Your task to perform on an android device: What's on my calendar tomorrow? Image 0: 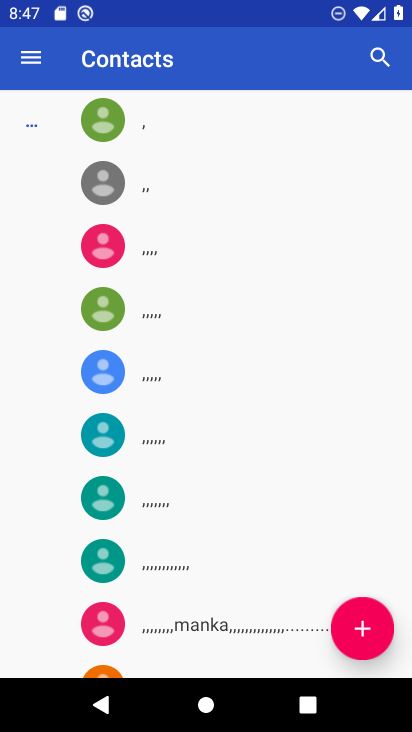
Step 0: press home button
Your task to perform on an android device: What's on my calendar tomorrow? Image 1: 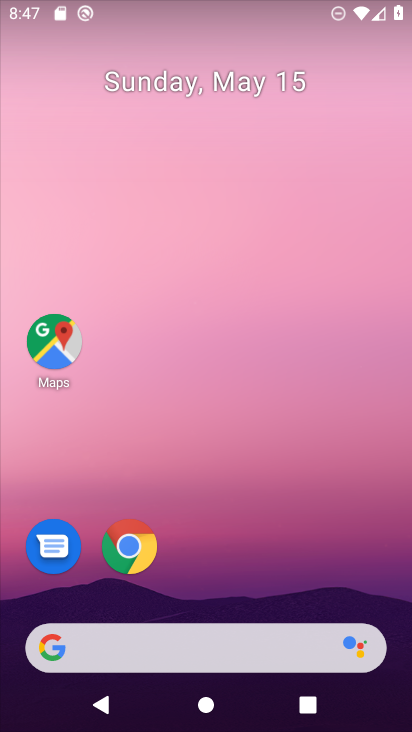
Step 1: drag from (264, 495) to (200, 92)
Your task to perform on an android device: What's on my calendar tomorrow? Image 2: 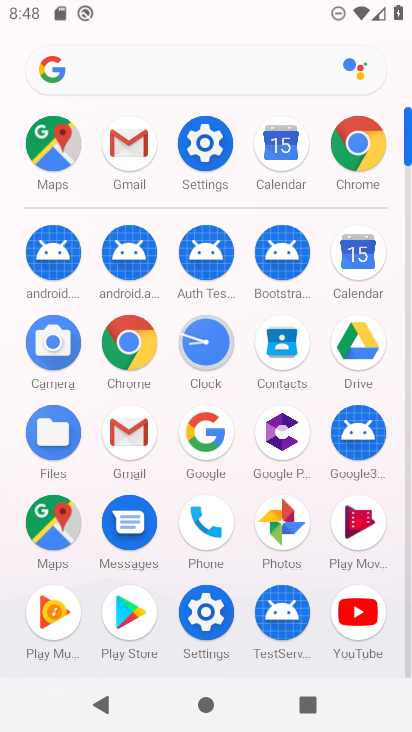
Step 2: click (354, 250)
Your task to perform on an android device: What's on my calendar tomorrow? Image 3: 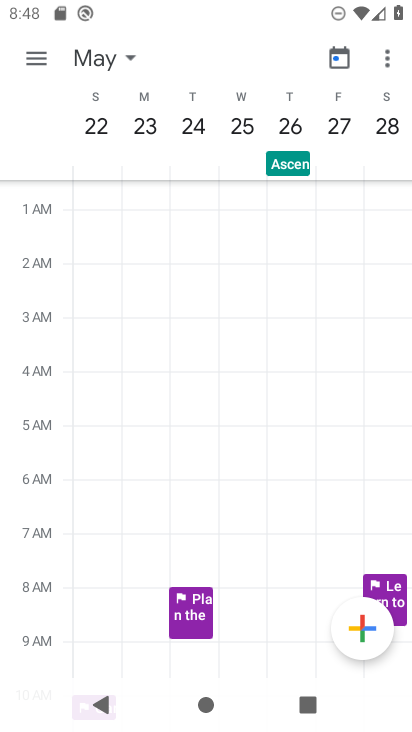
Step 3: drag from (96, 339) to (409, 522)
Your task to perform on an android device: What's on my calendar tomorrow? Image 4: 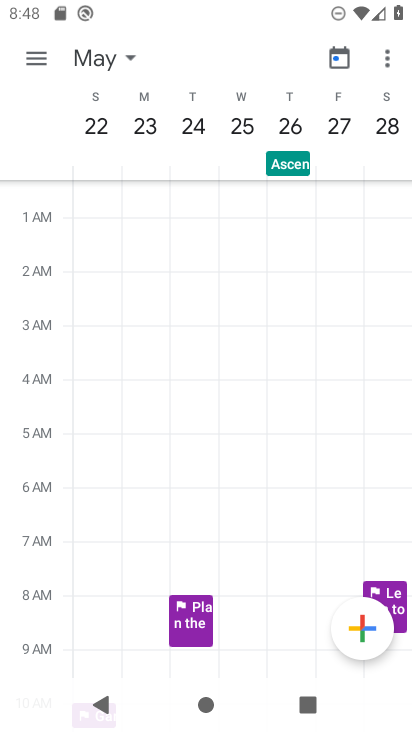
Step 4: drag from (86, 376) to (411, 391)
Your task to perform on an android device: What's on my calendar tomorrow? Image 5: 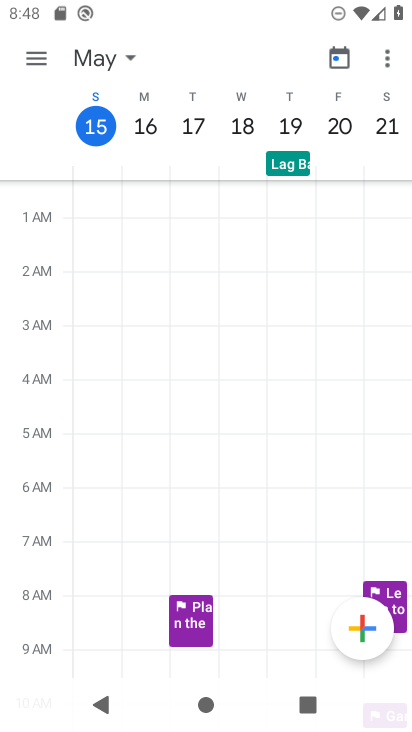
Step 5: click (148, 122)
Your task to perform on an android device: What's on my calendar tomorrow? Image 6: 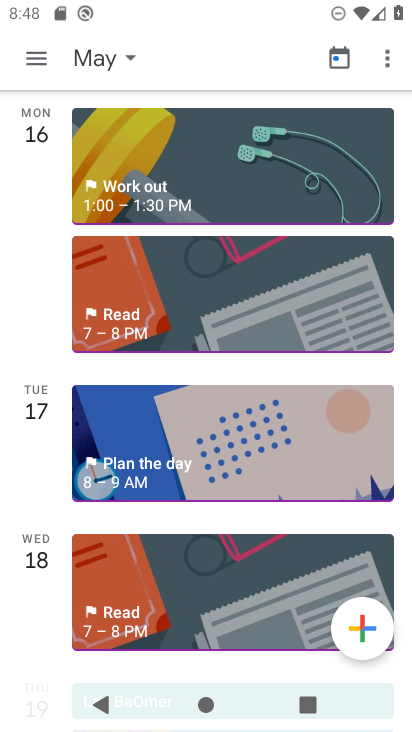
Step 6: task complete